Your task to perform on an android device: uninstall "VLC for Android" Image 0: 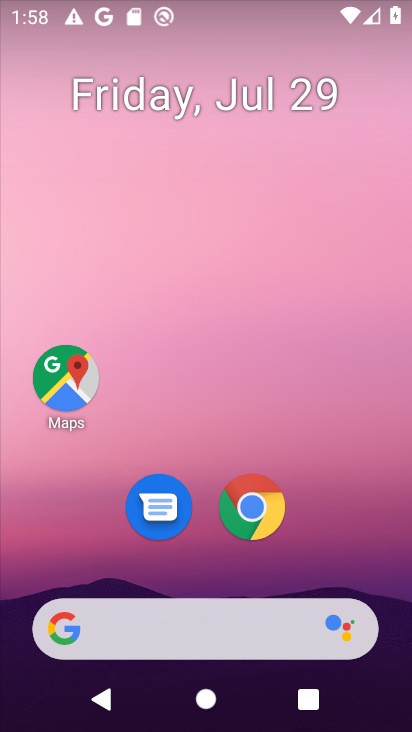
Step 0: drag from (308, 561) to (152, 2)
Your task to perform on an android device: uninstall "VLC for Android" Image 1: 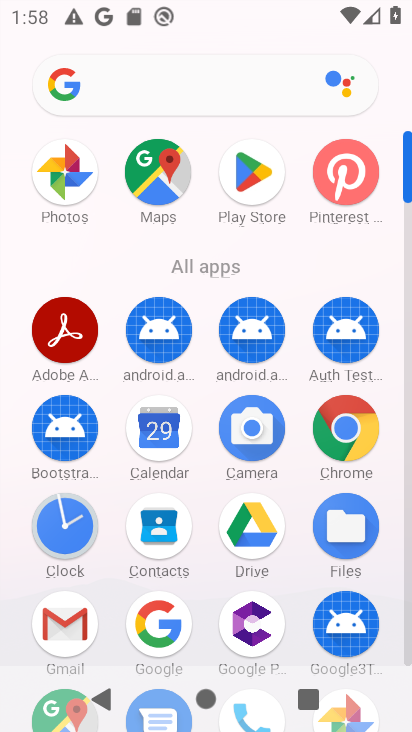
Step 1: click (409, 651)
Your task to perform on an android device: uninstall "VLC for Android" Image 2: 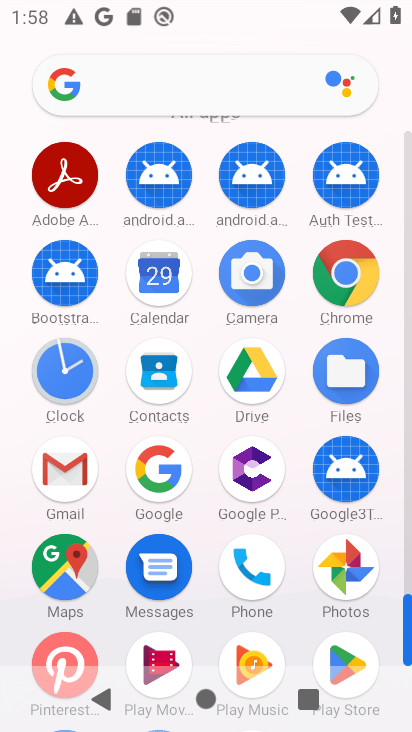
Step 2: click (408, 638)
Your task to perform on an android device: uninstall "VLC for Android" Image 3: 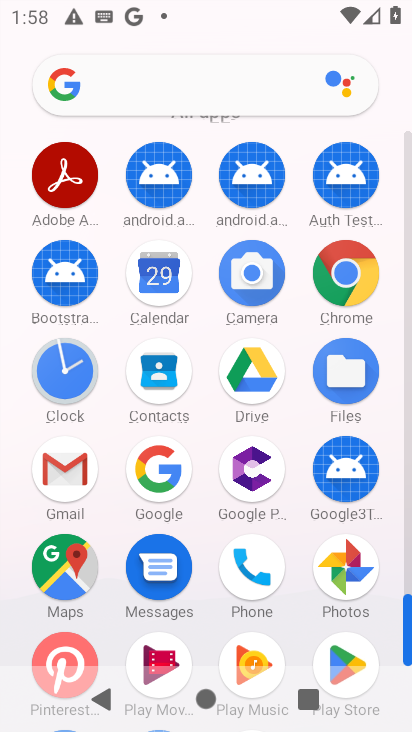
Step 3: drag from (407, 640) to (411, 601)
Your task to perform on an android device: uninstall "VLC for Android" Image 4: 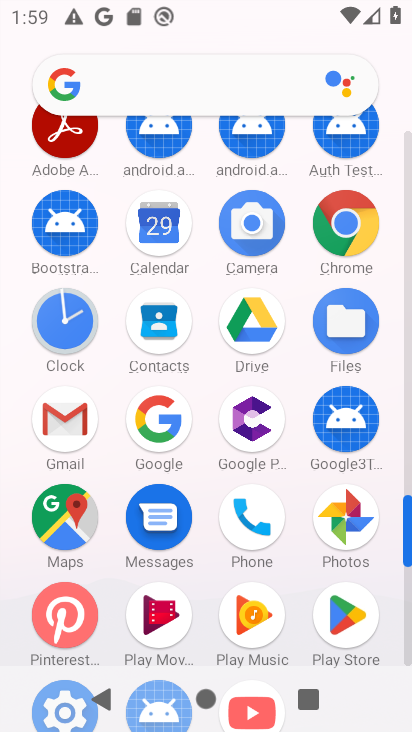
Step 4: click (408, 601)
Your task to perform on an android device: uninstall "VLC for Android" Image 5: 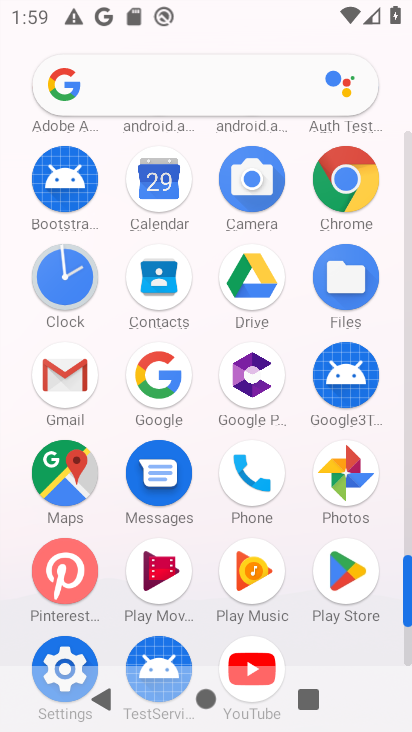
Step 5: click (407, 642)
Your task to perform on an android device: uninstall "VLC for Android" Image 6: 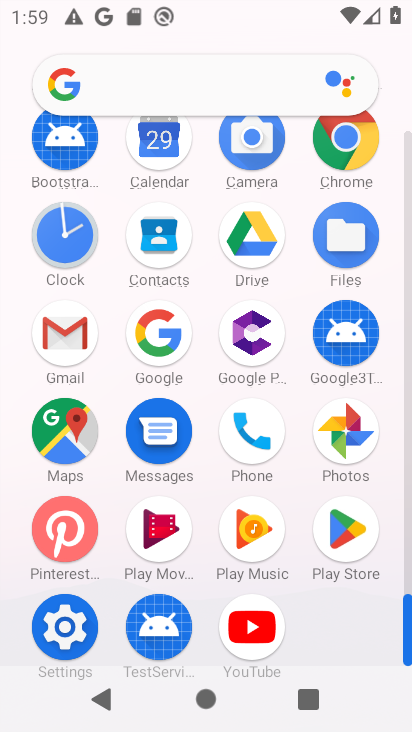
Step 6: drag from (405, 627) to (411, 366)
Your task to perform on an android device: uninstall "VLC for Android" Image 7: 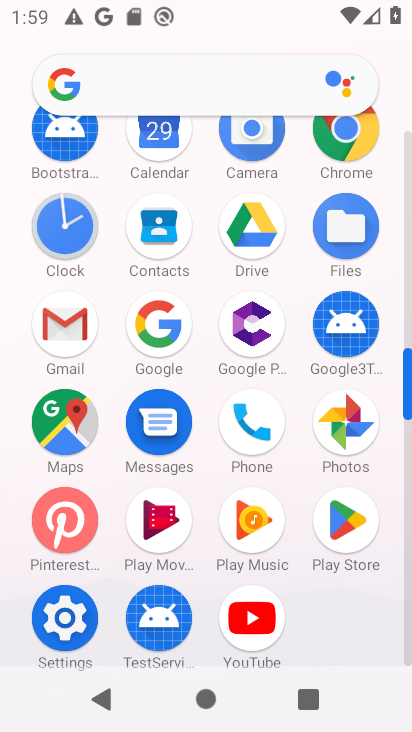
Step 7: click (409, 366)
Your task to perform on an android device: uninstall "VLC for Android" Image 8: 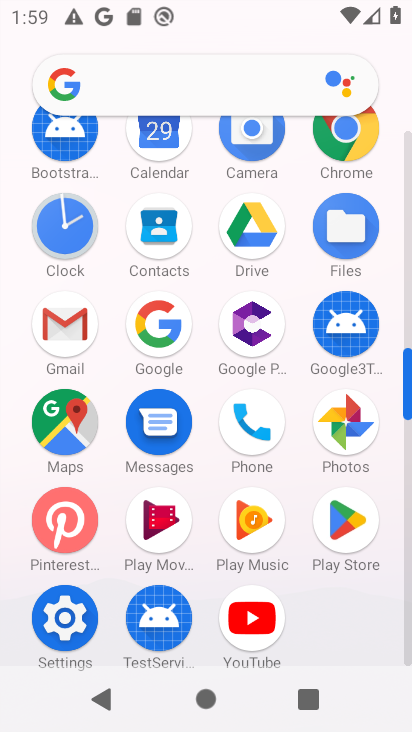
Step 8: click (404, 292)
Your task to perform on an android device: uninstall "VLC for Android" Image 9: 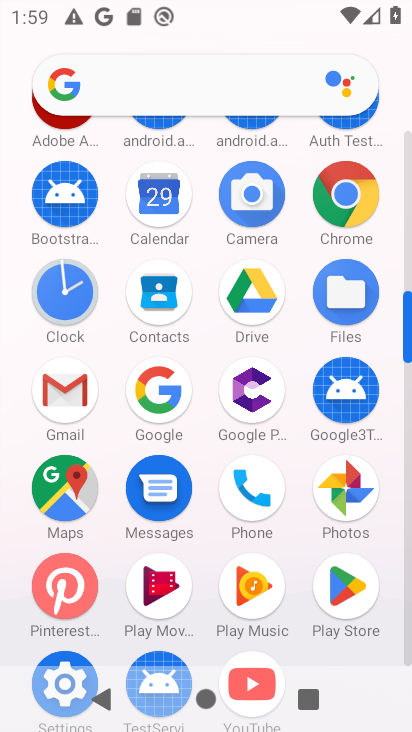
Step 9: click (405, 239)
Your task to perform on an android device: uninstall "VLC for Android" Image 10: 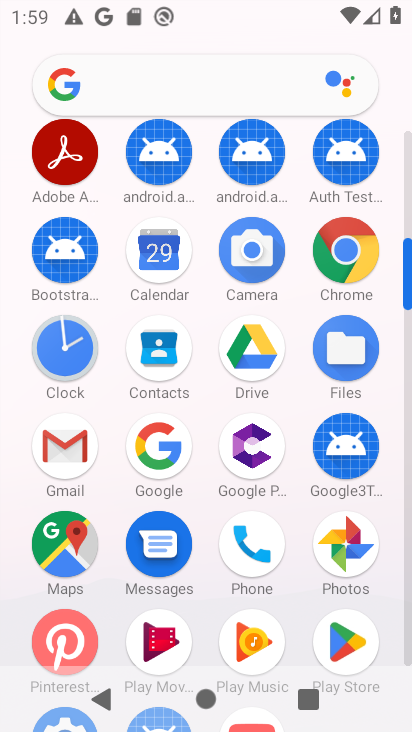
Step 10: task complete